Your task to perform on an android device: check data usage Image 0: 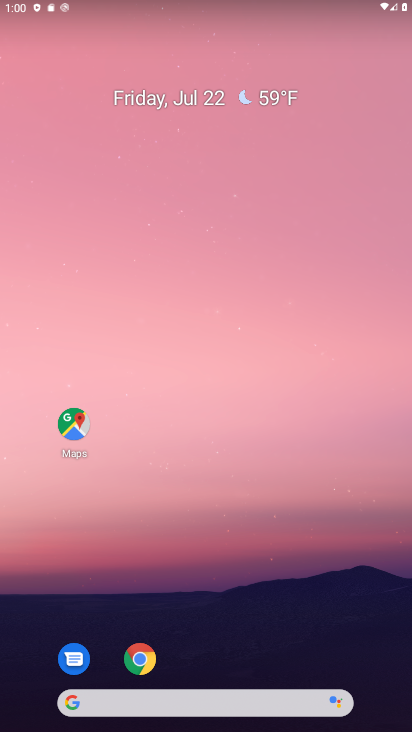
Step 0: drag from (205, 655) to (194, 353)
Your task to perform on an android device: check data usage Image 1: 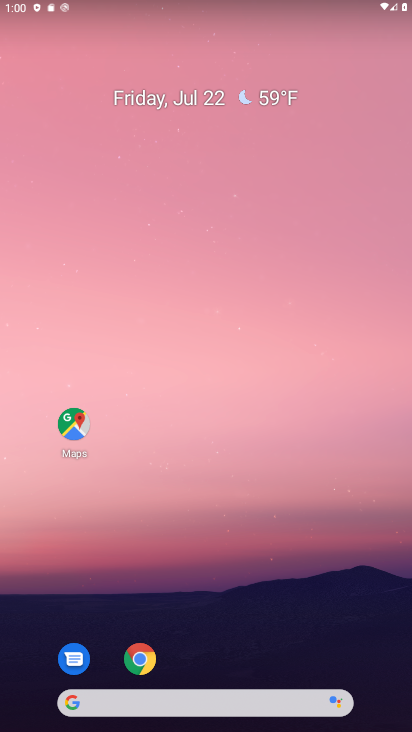
Step 1: drag from (222, 644) to (230, 301)
Your task to perform on an android device: check data usage Image 2: 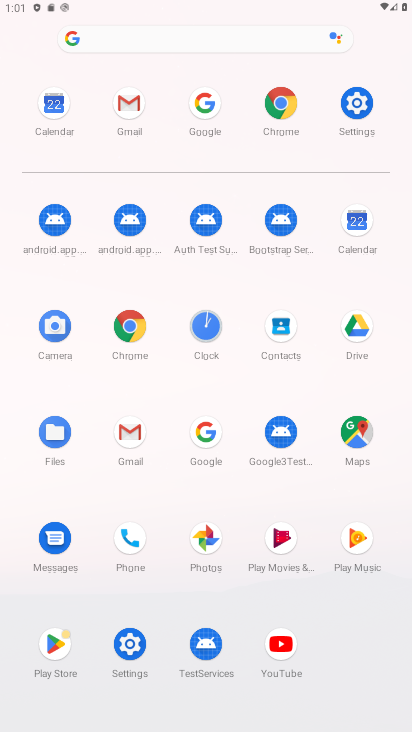
Step 2: click (358, 109)
Your task to perform on an android device: check data usage Image 3: 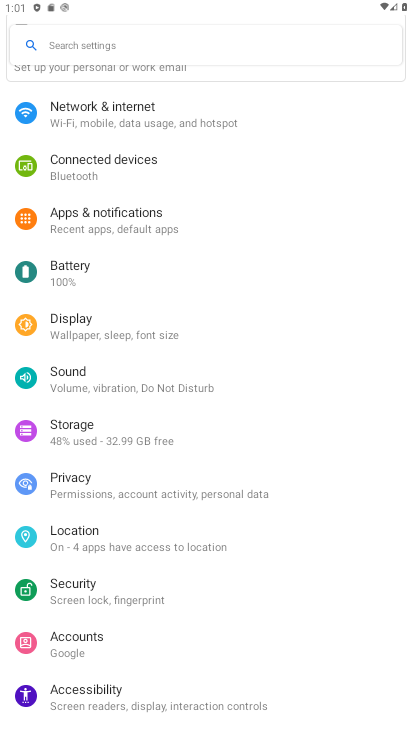
Step 3: click (179, 134)
Your task to perform on an android device: check data usage Image 4: 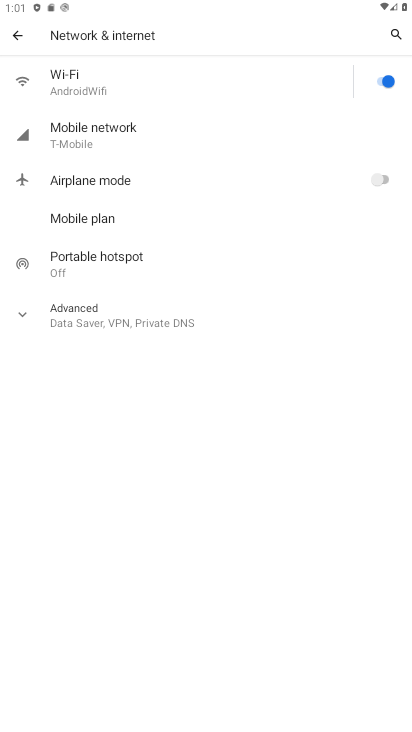
Step 4: click (114, 129)
Your task to perform on an android device: check data usage Image 5: 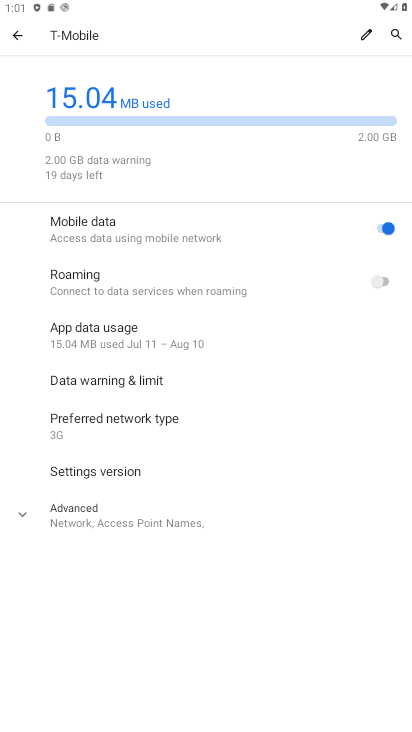
Step 5: click (123, 331)
Your task to perform on an android device: check data usage Image 6: 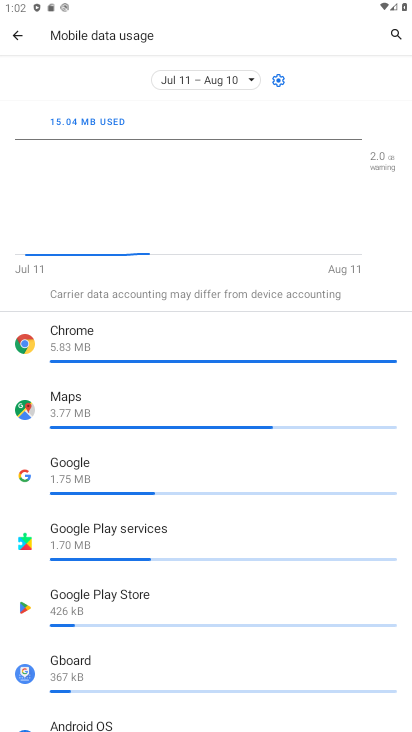
Step 6: task complete